Your task to perform on an android device: Is it going to rain this weekend? Image 0: 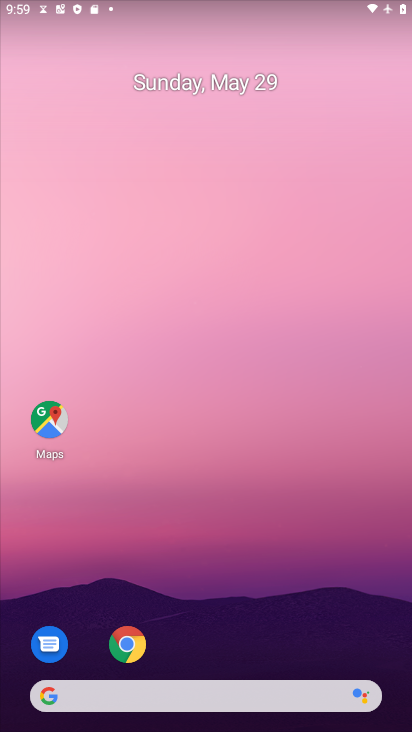
Step 0: click (132, 646)
Your task to perform on an android device: Is it going to rain this weekend? Image 1: 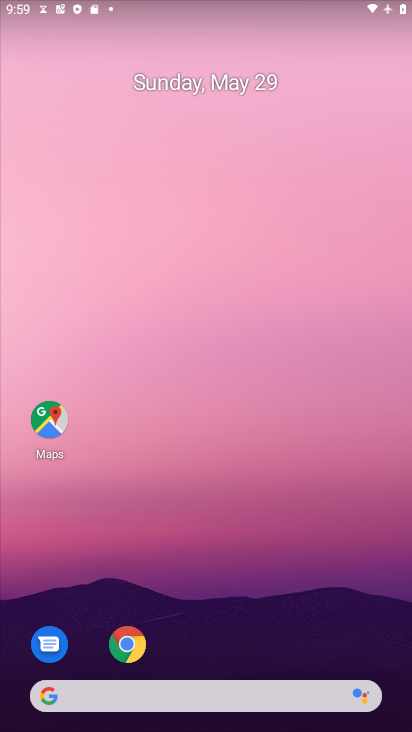
Step 1: click (139, 641)
Your task to perform on an android device: Is it going to rain this weekend? Image 2: 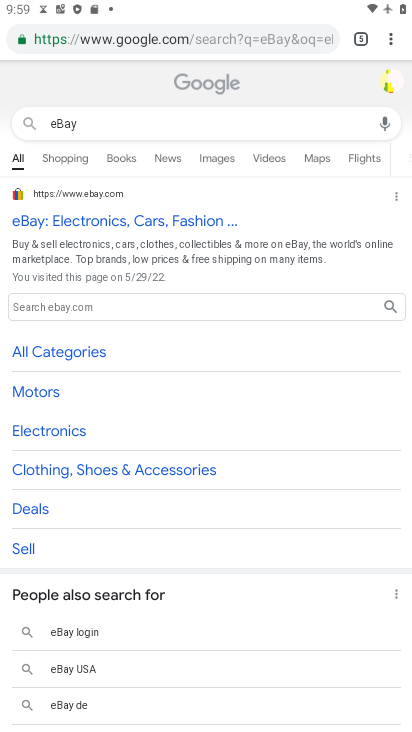
Step 2: click (393, 38)
Your task to perform on an android device: Is it going to rain this weekend? Image 3: 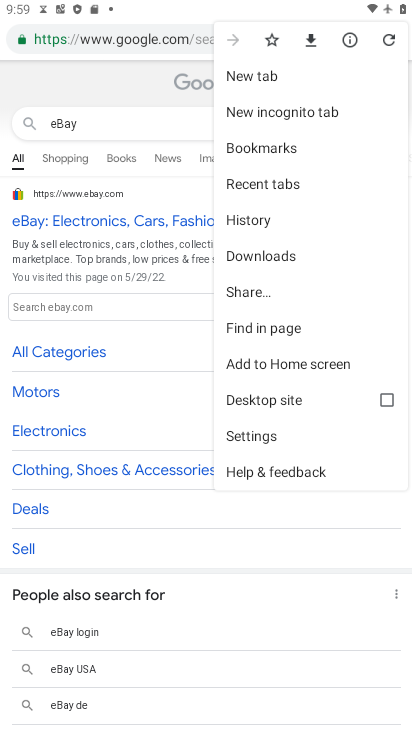
Step 3: click (244, 78)
Your task to perform on an android device: Is it going to rain this weekend? Image 4: 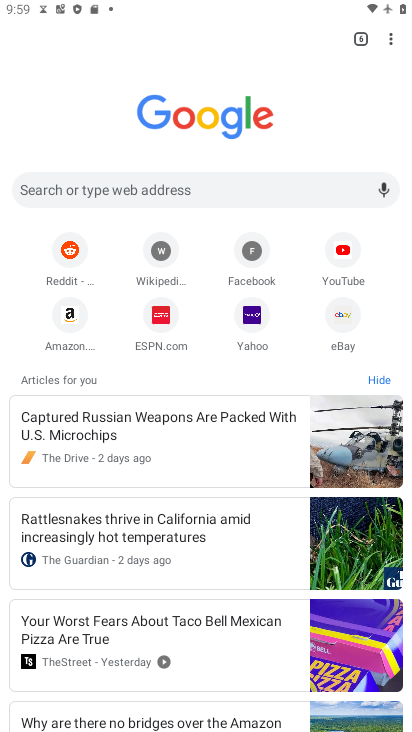
Step 4: click (212, 184)
Your task to perform on an android device: Is it going to rain this weekend? Image 5: 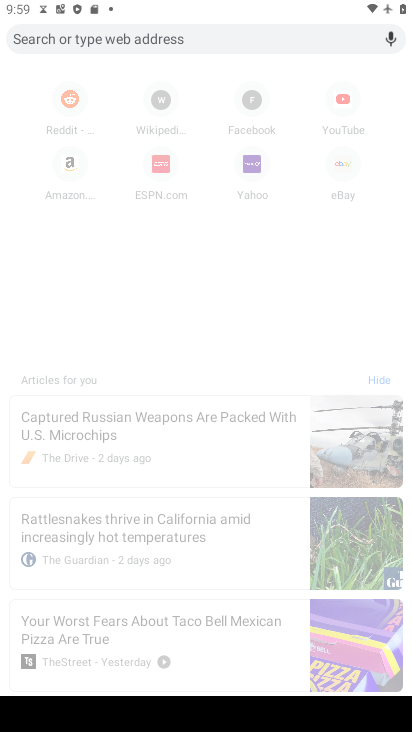
Step 5: type "Is it going to rain this weekend?"
Your task to perform on an android device: Is it going to rain this weekend? Image 6: 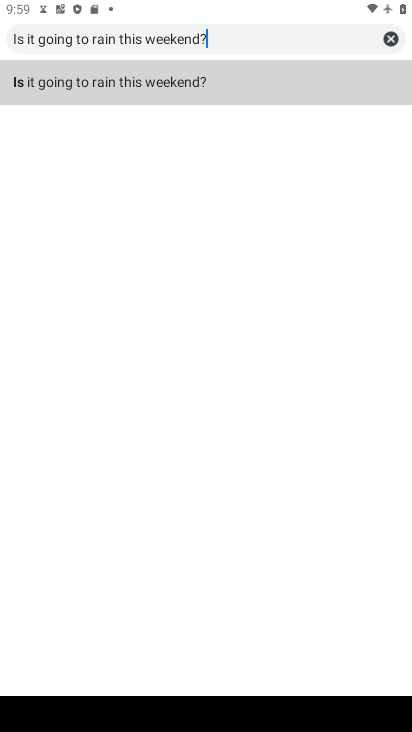
Step 6: click (267, 82)
Your task to perform on an android device: Is it going to rain this weekend? Image 7: 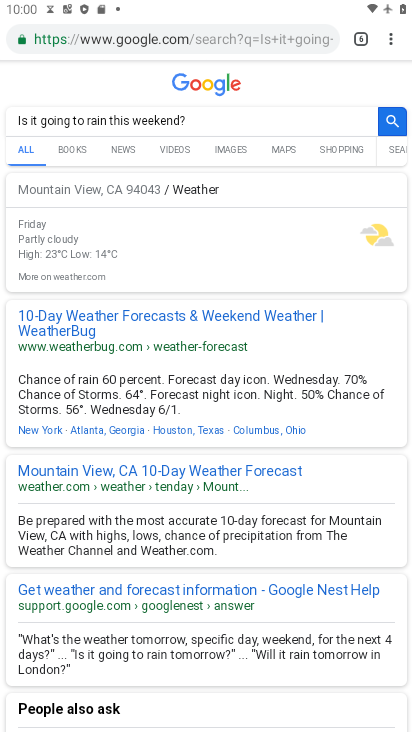
Step 7: task complete